Your task to perform on an android device: set the stopwatch Image 0: 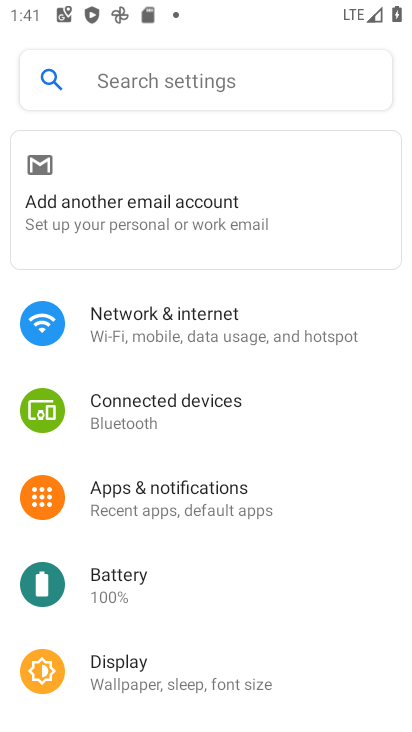
Step 0: press home button
Your task to perform on an android device: set the stopwatch Image 1: 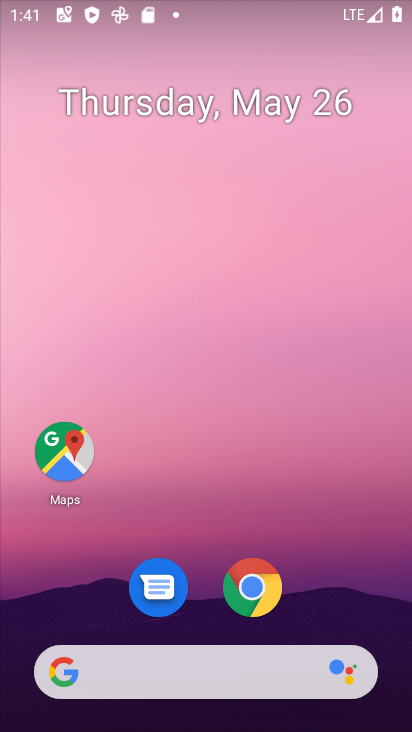
Step 1: drag from (362, 606) to (370, 224)
Your task to perform on an android device: set the stopwatch Image 2: 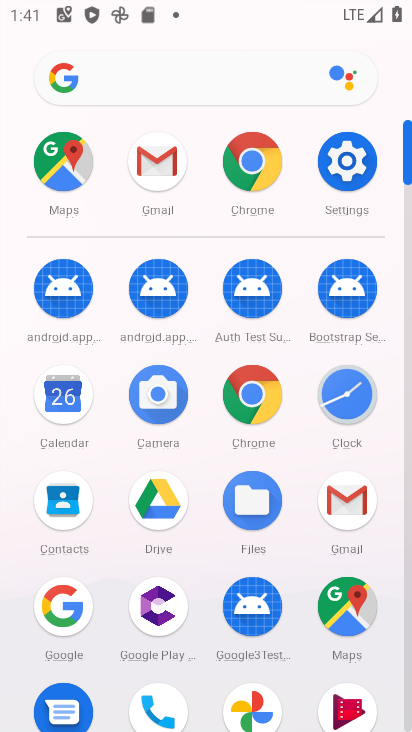
Step 2: click (354, 407)
Your task to perform on an android device: set the stopwatch Image 3: 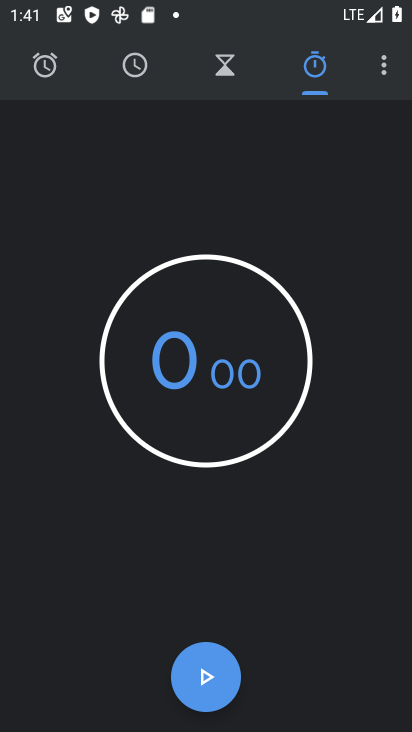
Step 3: click (188, 660)
Your task to perform on an android device: set the stopwatch Image 4: 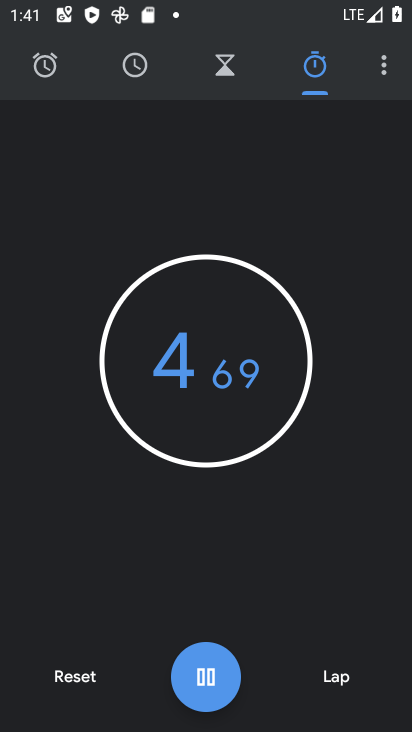
Step 4: task complete